Your task to perform on an android device: toggle location history Image 0: 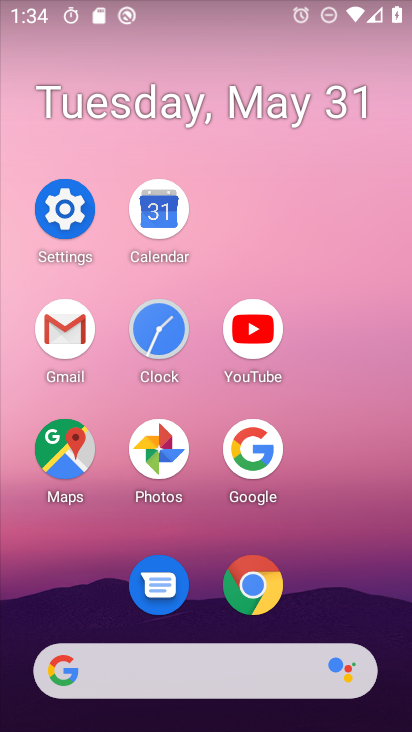
Step 0: click (60, 222)
Your task to perform on an android device: toggle location history Image 1: 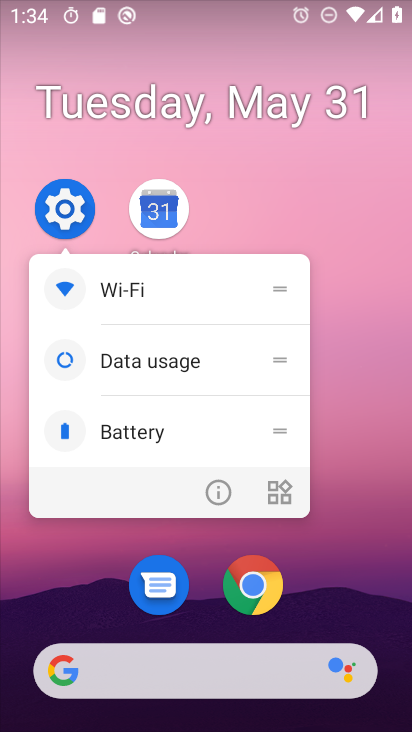
Step 1: click (45, 198)
Your task to perform on an android device: toggle location history Image 2: 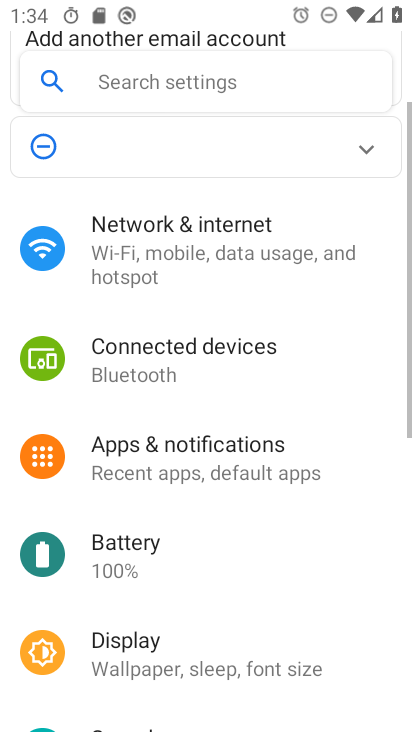
Step 2: drag from (225, 634) to (238, 277)
Your task to perform on an android device: toggle location history Image 3: 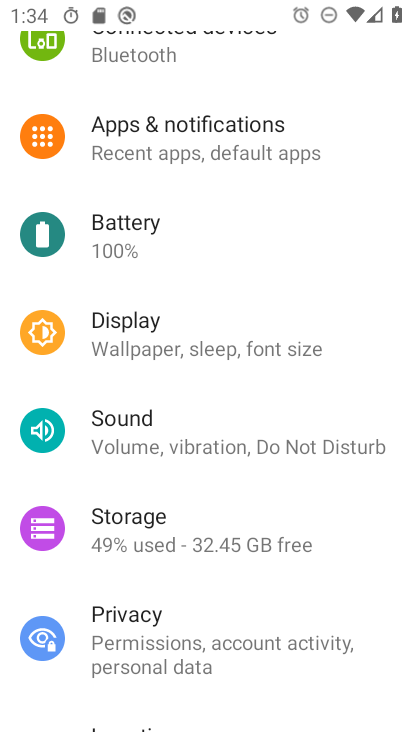
Step 3: drag from (238, 579) to (265, 209)
Your task to perform on an android device: toggle location history Image 4: 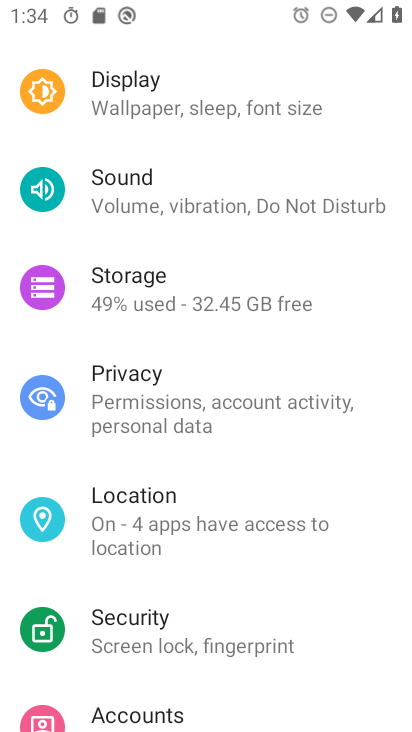
Step 4: click (250, 537)
Your task to perform on an android device: toggle location history Image 5: 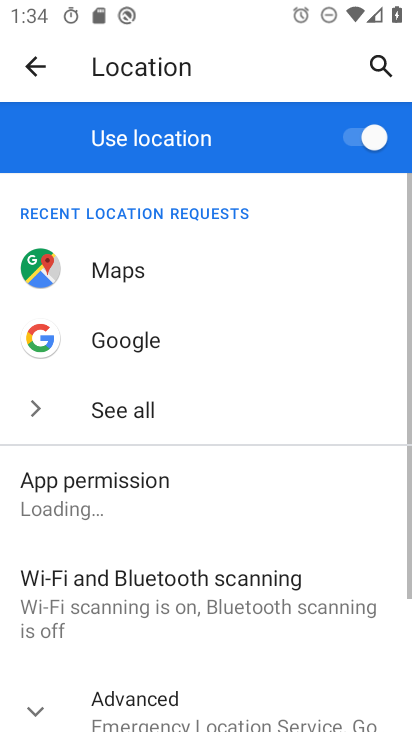
Step 5: drag from (252, 528) to (284, 203)
Your task to perform on an android device: toggle location history Image 6: 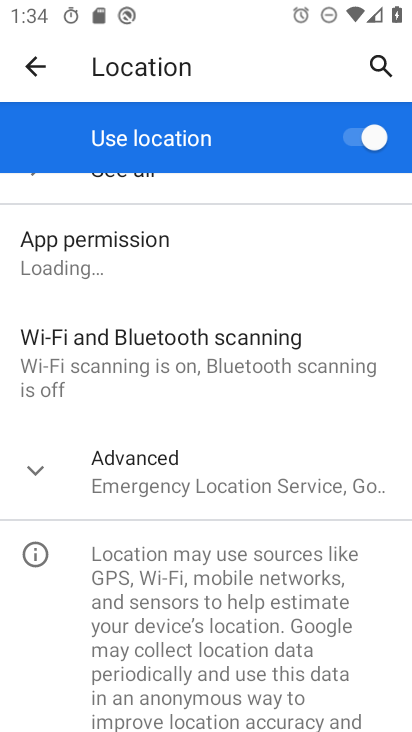
Step 6: click (266, 473)
Your task to perform on an android device: toggle location history Image 7: 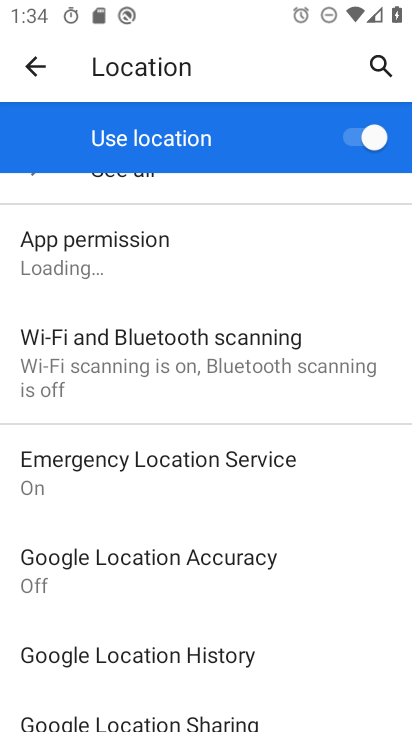
Step 7: click (248, 642)
Your task to perform on an android device: toggle location history Image 8: 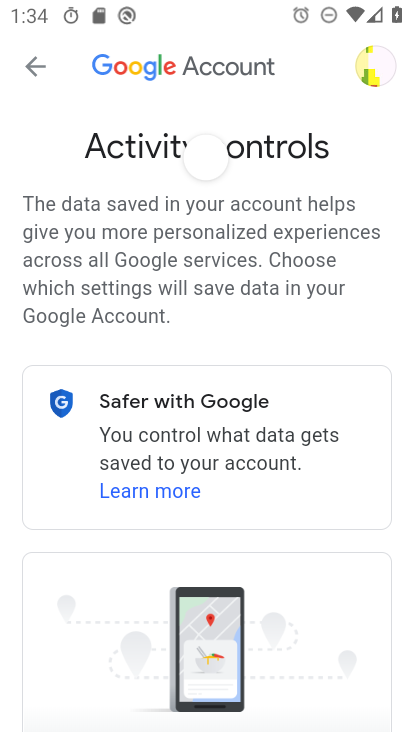
Step 8: drag from (308, 556) to (292, 165)
Your task to perform on an android device: toggle location history Image 9: 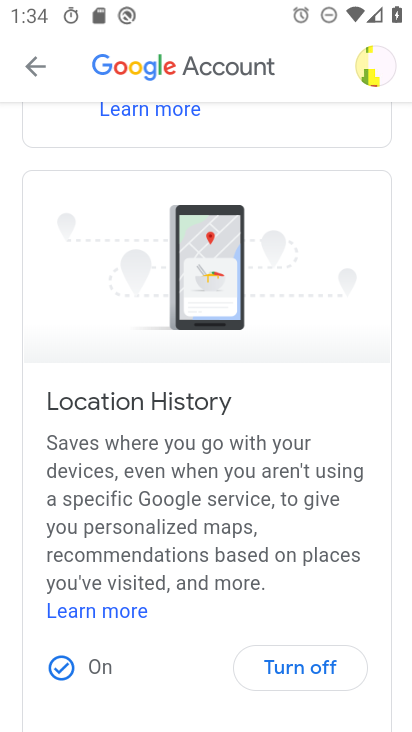
Step 9: click (290, 668)
Your task to perform on an android device: toggle location history Image 10: 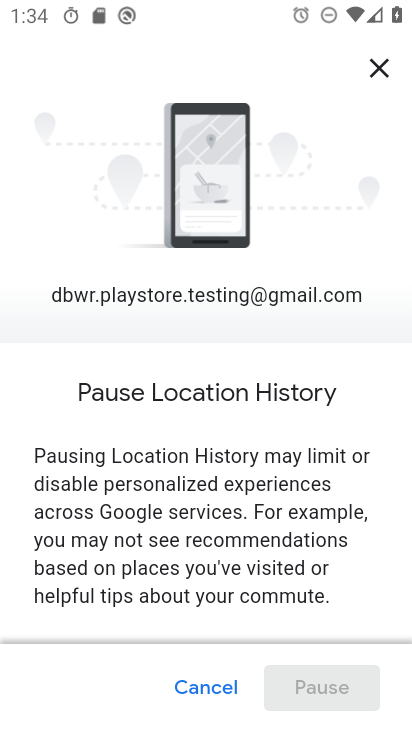
Step 10: drag from (296, 620) to (312, 164)
Your task to perform on an android device: toggle location history Image 11: 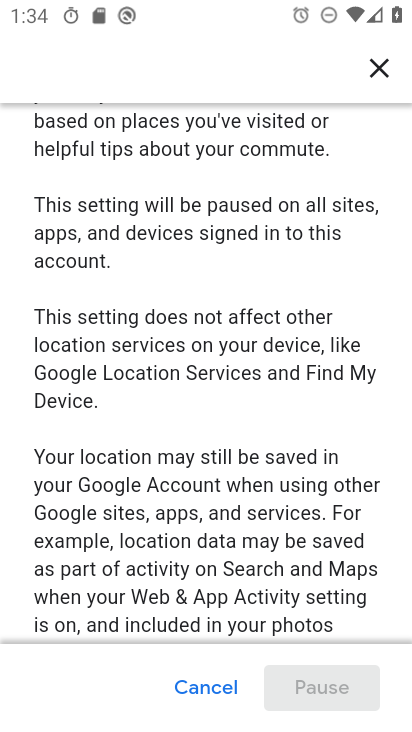
Step 11: drag from (344, 631) to (343, 137)
Your task to perform on an android device: toggle location history Image 12: 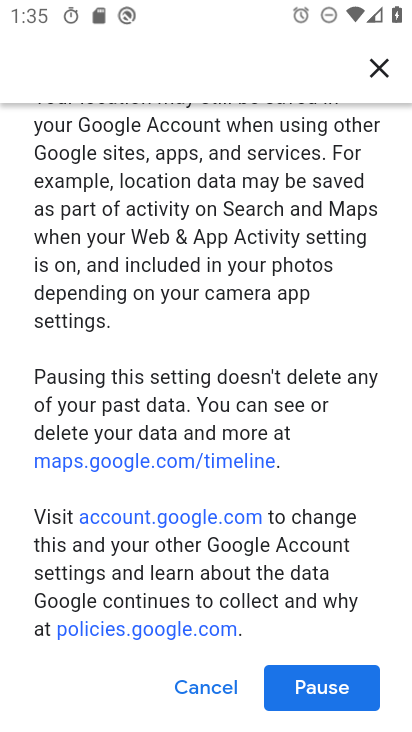
Step 12: click (330, 677)
Your task to perform on an android device: toggle location history Image 13: 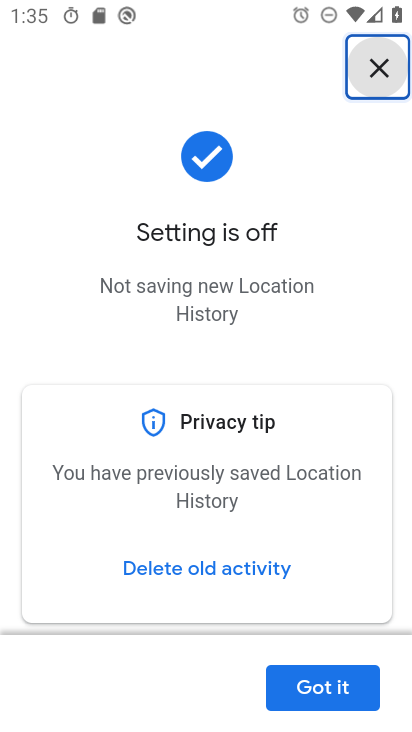
Step 13: click (351, 666)
Your task to perform on an android device: toggle location history Image 14: 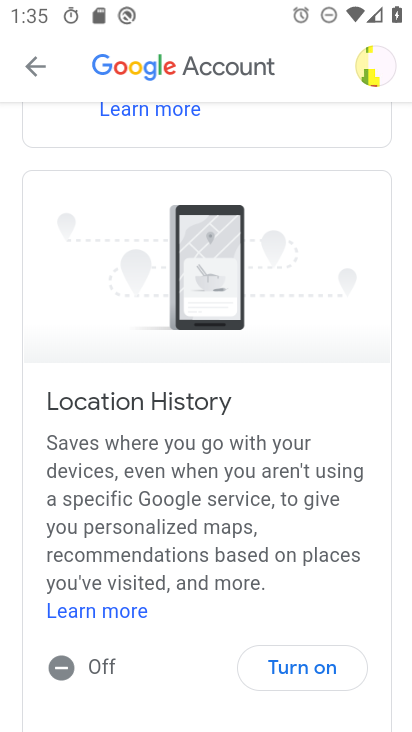
Step 14: task complete